Your task to perform on an android device: Open Maps and search for coffee Image 0: 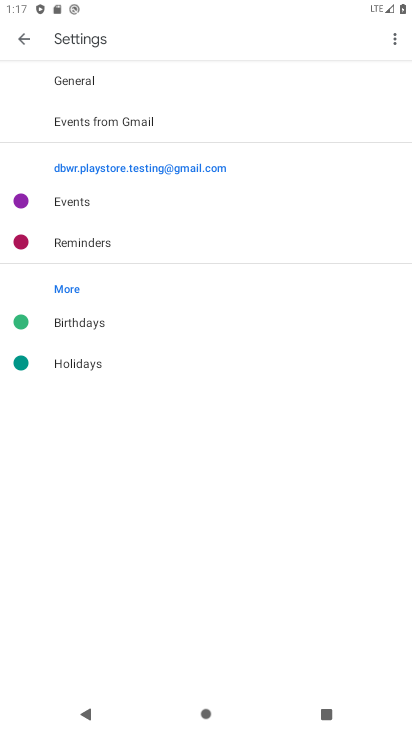
Step 0: press home button
Your task to perform on an android device: Open Maps and search for coffee Image 1: 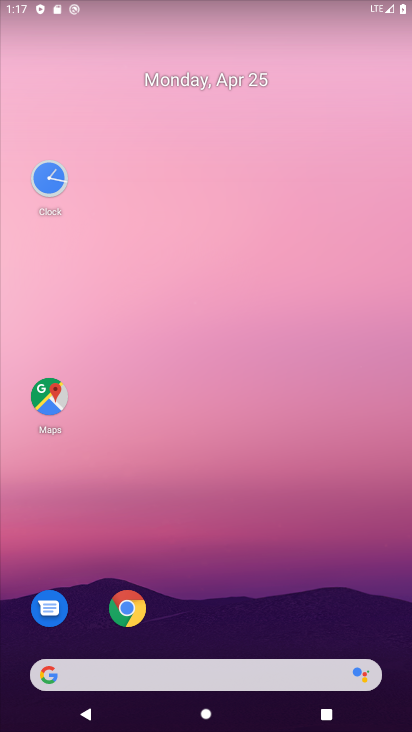
Step 1: click (46, 389)
Your task to perform on an android device: Open Maps and search for coffee Image 2: 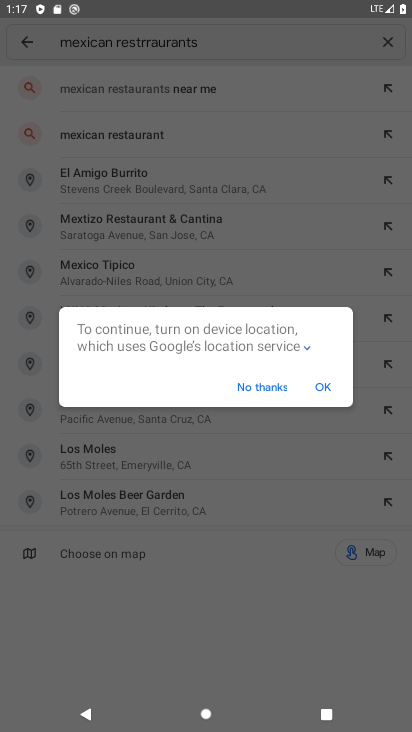
Step 2: click (387, 43)
Your task to perform on an android device: Open Maps and search for coffee Image 3: 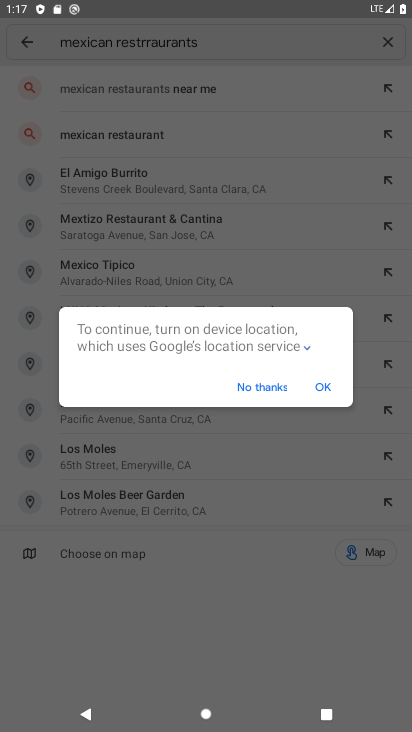
Step 3: click (387, 43)
Your task to perform on an android device: Open Maps and search for coffee Image 4: 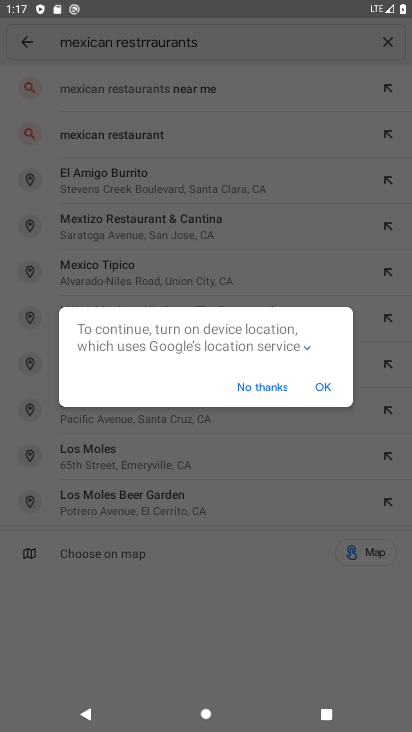
Step 4: click (325, 374)
Your task to perform on an android device: Open Maps and search for coffee Image 5: 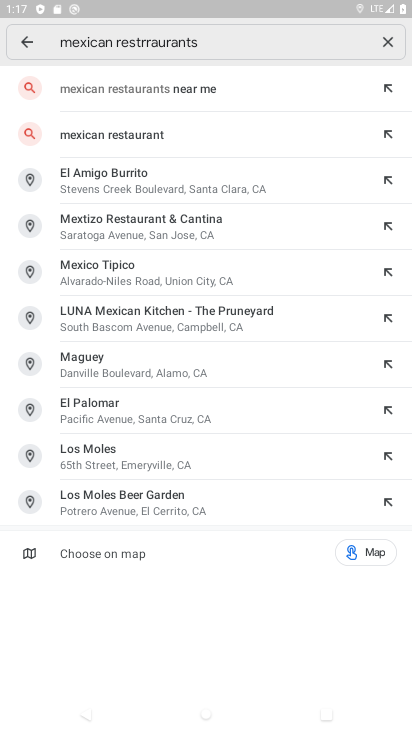
Step 5: click (385, 40)
Your task to perform on an android device: Open Maps and search for coffee Image 6: 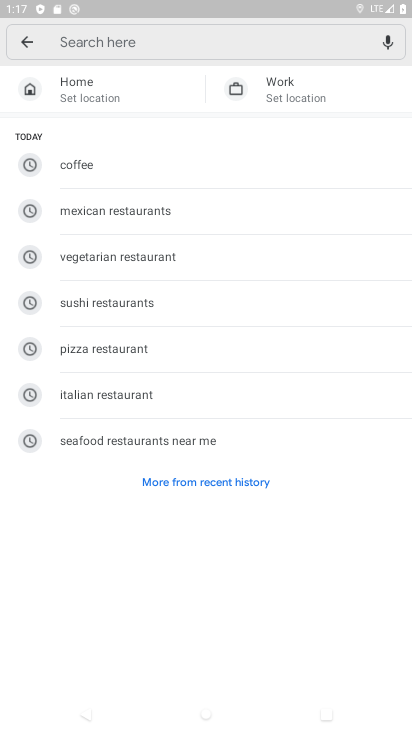
Step 6: click (309, 41)
Your task to perform on an android device: Open Maps and search for coffee Image 7: 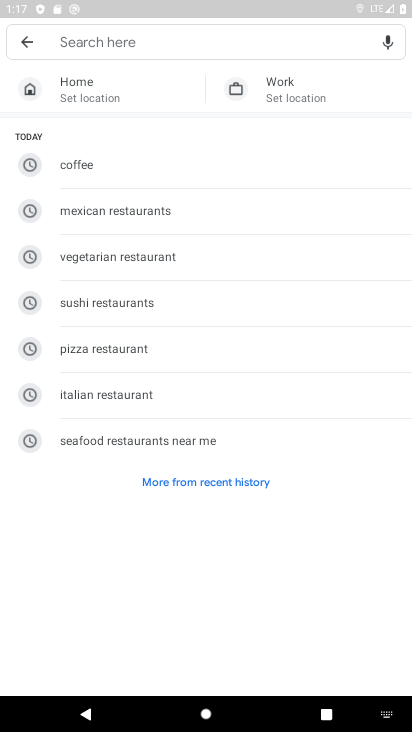
Step 7: type "coffee"
Your task to perform on an android device: Open Maps and search for coffee Image 8: 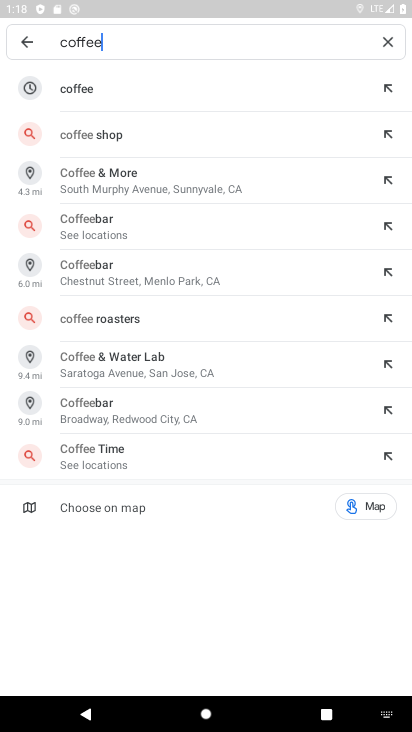
Step 8: task complete